Your task to perform on an android device: choose inbox layout in the gmail app Image 0: 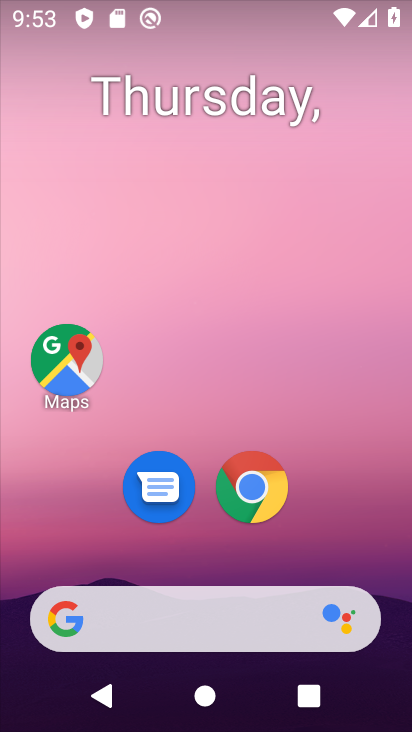
Step 0: drag from (324, 509) to (170, 210)
Your task to perform on an android device: choose inbox layout in the gmail app Image 1: 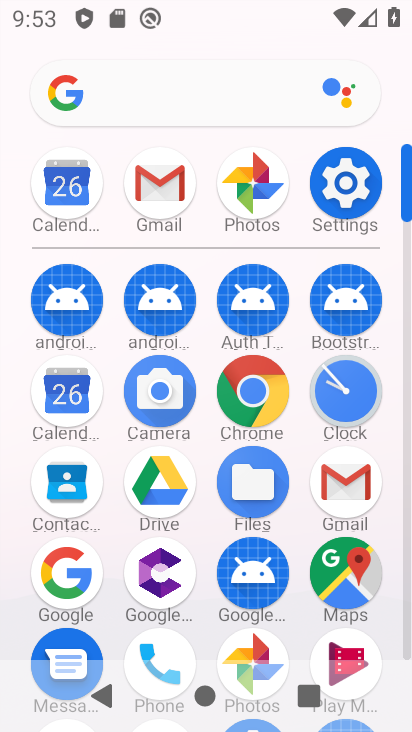
Step 1: click (355, 484)
Your task to perform on an android device: choose inbox layout in the gmail app Image 2: 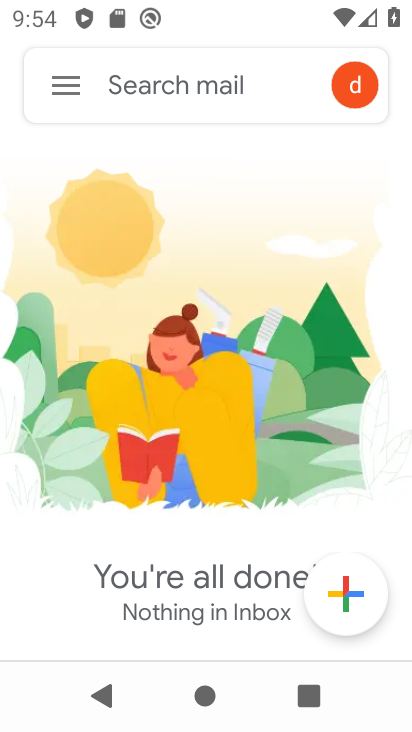
Step 2: click (66, 83)
Your task to perform on an android device: choose inbox layout in the gmail app Image 3: 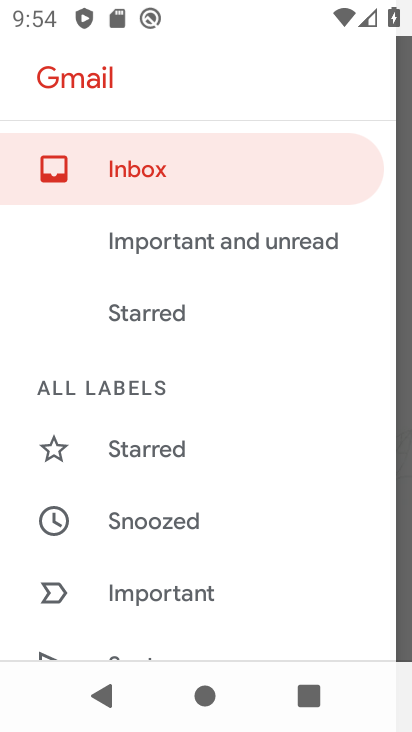
Step 3: task complete